Your task to perform on an android device: toggle data saver in the chrome app Image 0: 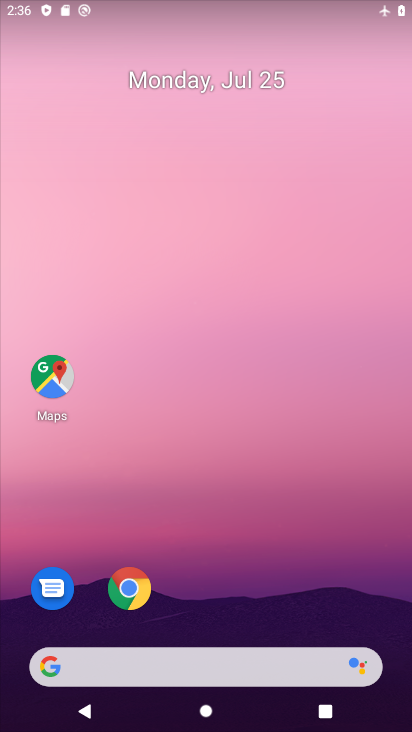
Step 0: click (126, 588)
Your task to perform on an android device: toggle data saver in the chrome app Image 1: 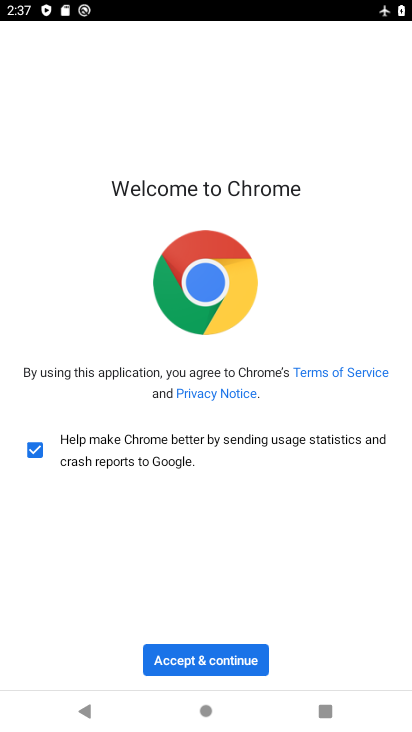
Step 1: click (217, 653)
Your task to perform on an android device: toggle data saver in the chrome app Image 2: 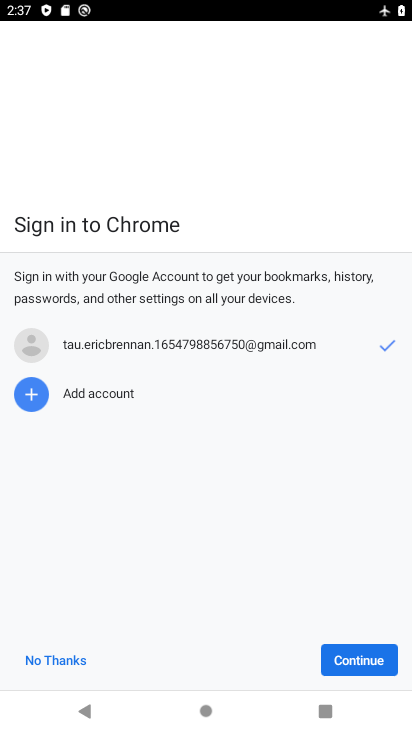
Step 2: click (378, 654)
Your task to perform on an android device: toggle data saver in the chrome app Image 3: 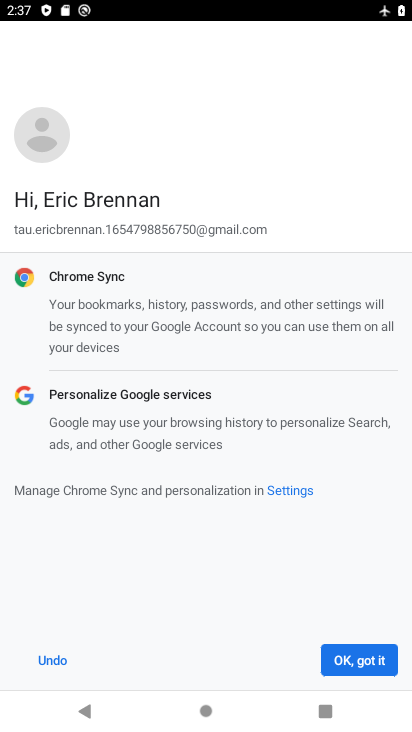
Step 3: click (373, 658)
Your task to perform on an android device: toggle data saver in the chrome app Image 4: 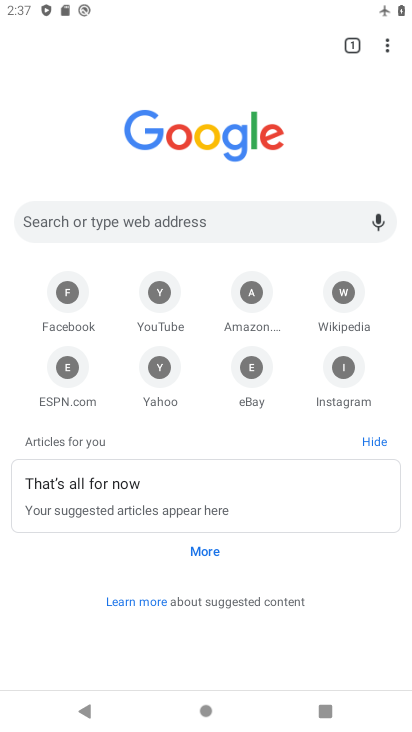
Step 4: click (387, 49)
Your task to perform on an android device: toggle data saver in the chrome app Image 5: 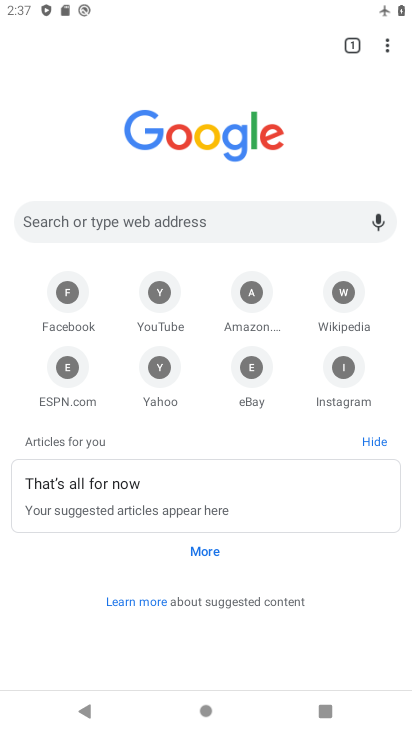
Step 5: click (386, 44)
Your task to perform on an android device: toggle data saver in the chrome app Image 6: 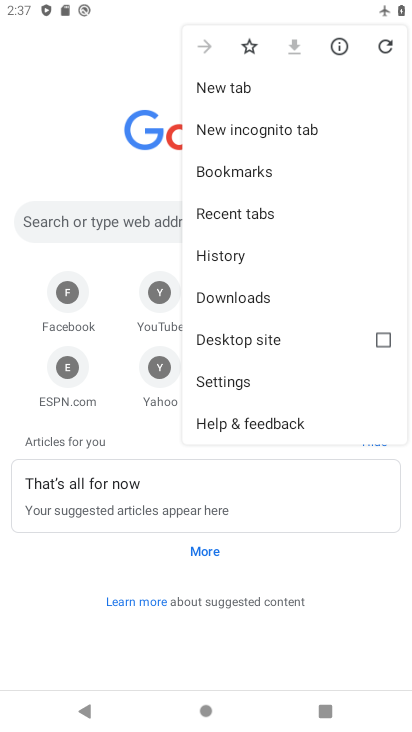
Step 6: click (225, 377)
Your task to perform on an android device: toggle data saver in the chrome app Image 7: 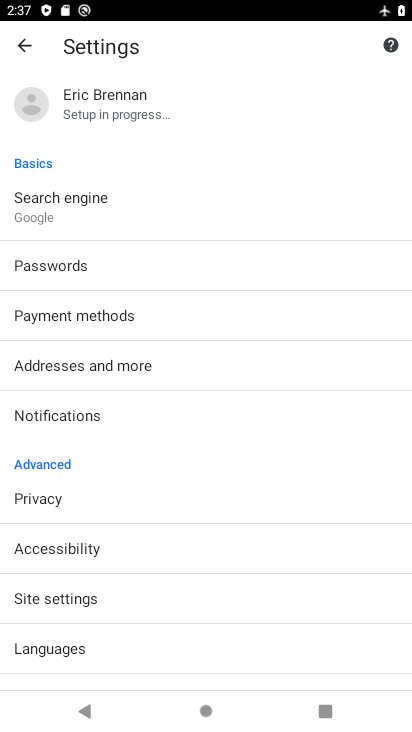
Step 7: drag from (82, 601) to (85, 325)
Your task to perform on an android device: toggle data saver in the chrome app Image 8: 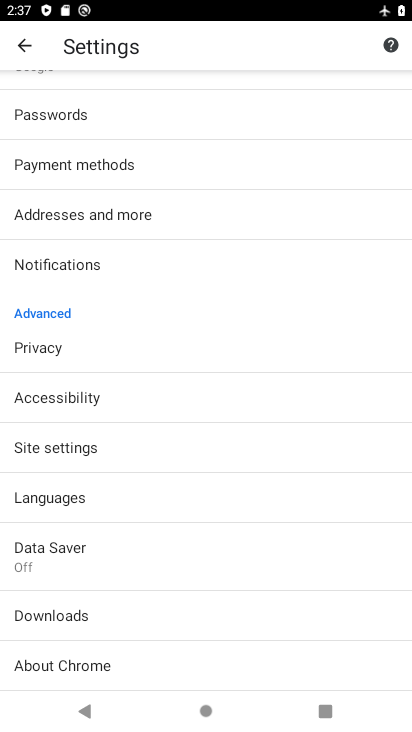
Step 8: click (51, 548)
Your task to perform on an android device: toggle data saver in the chrome app Image 9: 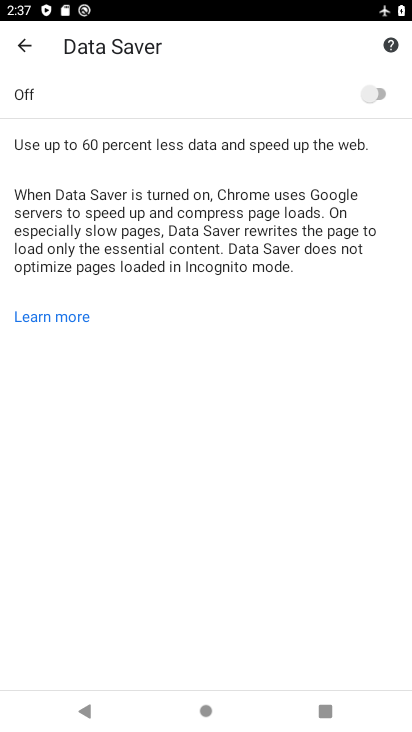
Step 9: click (377, 85)
Your task to perform on an android device: toggle data saver in the chrome app Image 10: 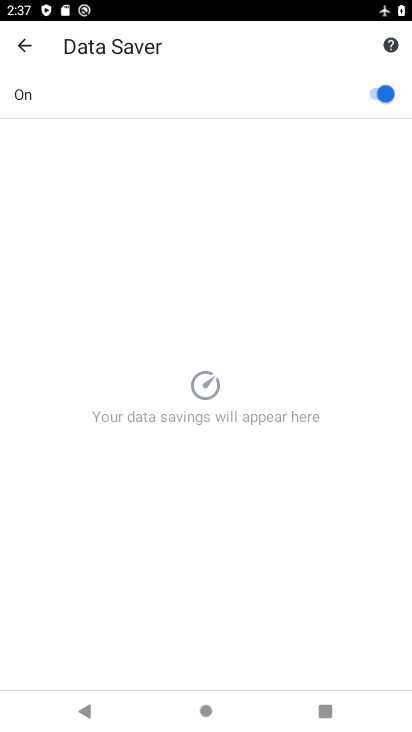
Step 10: task complete